Your task to perform on an android device: make emails show in primary in the gmail app Image 0: 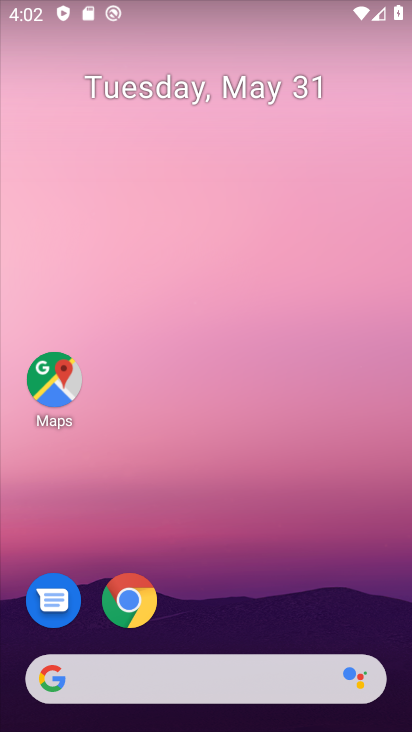
Step 0: drag from (261, 595) to (192, 276)
Your task to perform on an android device: make emails show in primary in the gmail app Image 1: 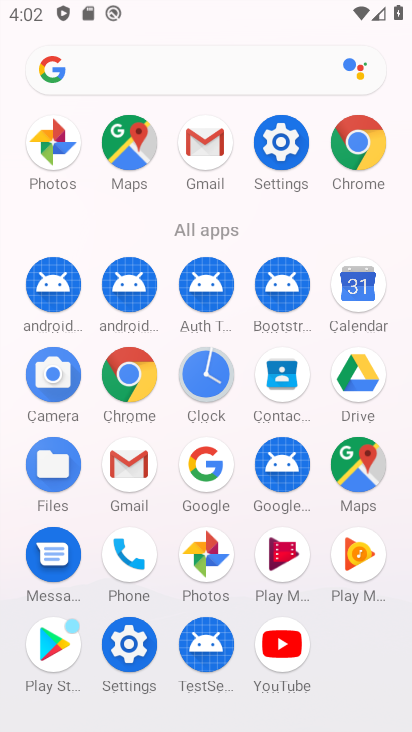
Step 1: click (204, 140)
Your task to perform on an android device: make emails show in primary in the gmail app Image 2: 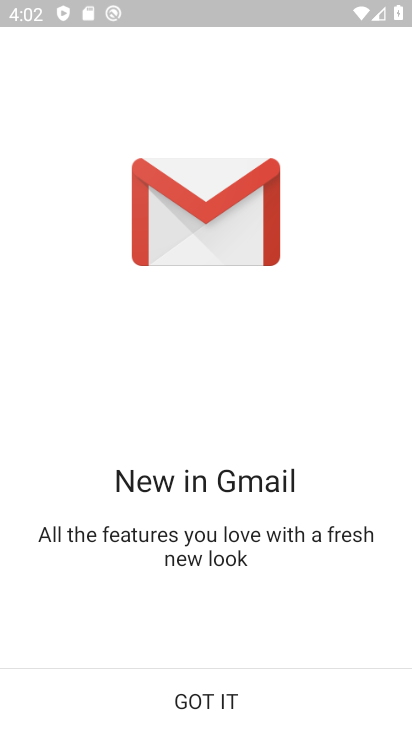
Step 2: click (207, 702)
Your task to perform on an android device: make emails show in primary in the gmail app Image 3: 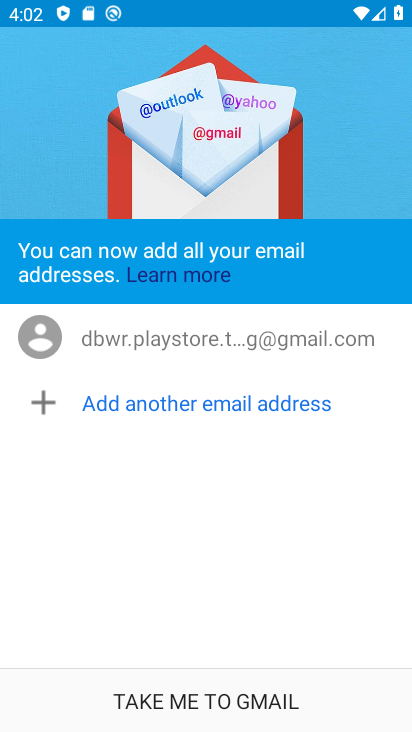
Step 3: click (207, 702)
Your task to perform on an android device: make emails show in primary in the gmail app Image 4: 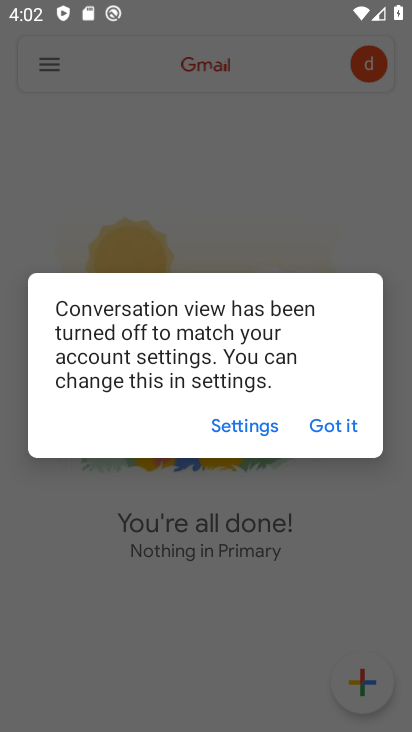
Step 4: click (341, 423)
Your task to perform on an android device: make emails show in primary in the gmail app Image 5: 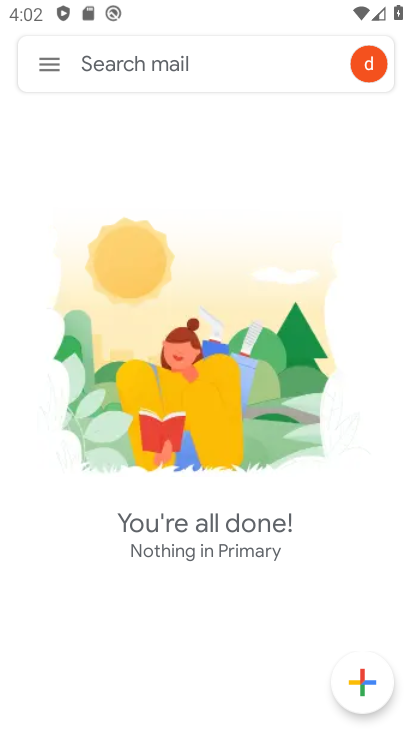
Step 5: click (51, 68)
Your task to perform on an android device: make emails show in primary in the gmail app Image 6: 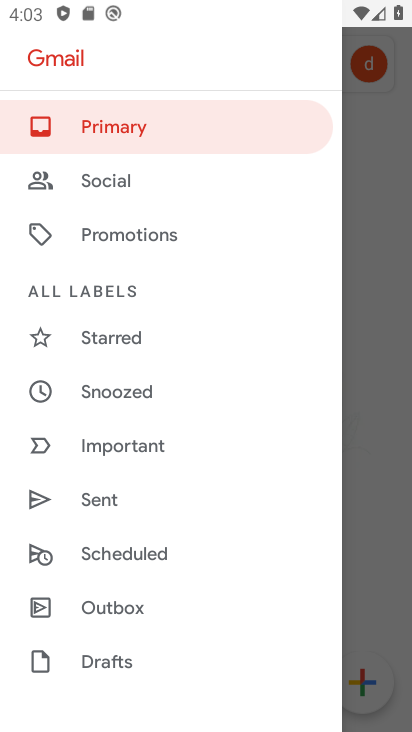
Step 6: task complete